Your task to perform on an android device: Open battery settings Image 0: 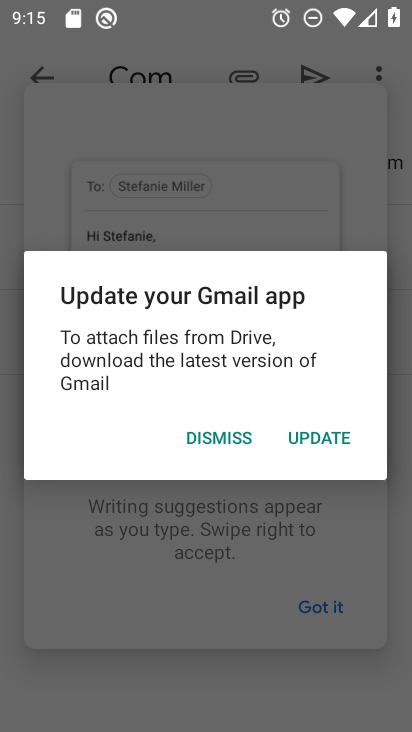
Step 0: press home button
Your task to perform on an android device: Open battery settings Image 1: 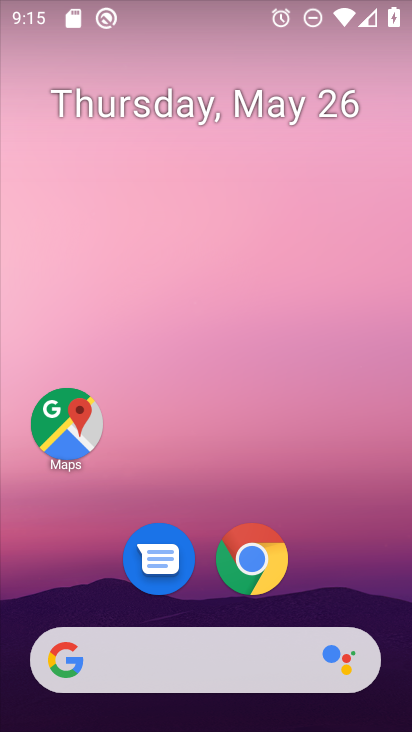
Step 1: drag from (336, 579) to (363, 82)
Your task to perform on an android device: Open battery settings Image 2: 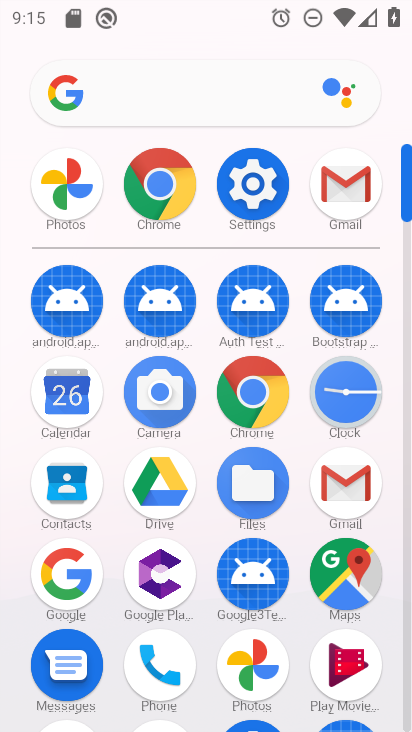
Step 2: click (249, 161)
Your task to perform on an android device: Open battery settings Image 3: 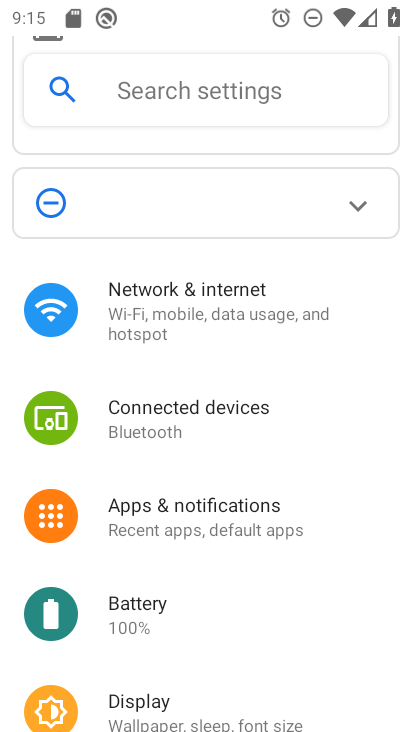
Step 3: click (158, 620)
Your task to perform on an android device: Open battery settings Image 4: 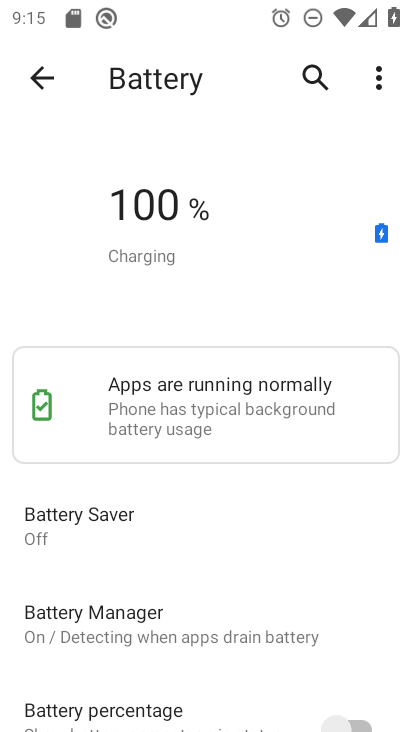
Step 4: task complete